Your task to perform on an android device: check battery use Image 0: 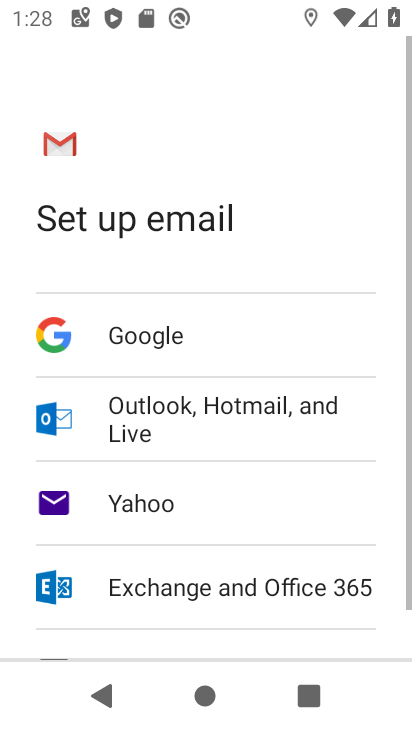
Step 0: press back button
Your task to perform on an android device: check battery use Image 1: 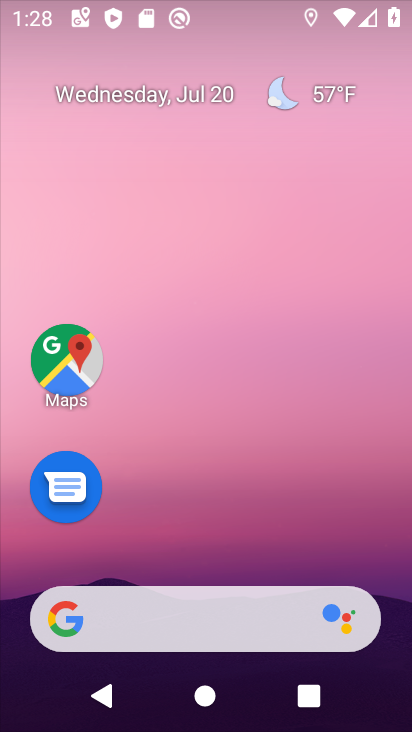
Step 1: drag from (166, 541) to (245, 49)
Your task to perform on an android device: check battery use Image 2: 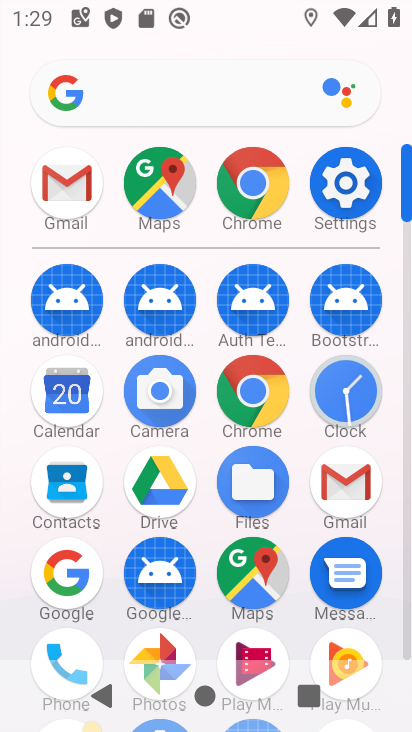
Step 2: click (356, 174)
Your task to perform on an android device: check battery use Image 3: 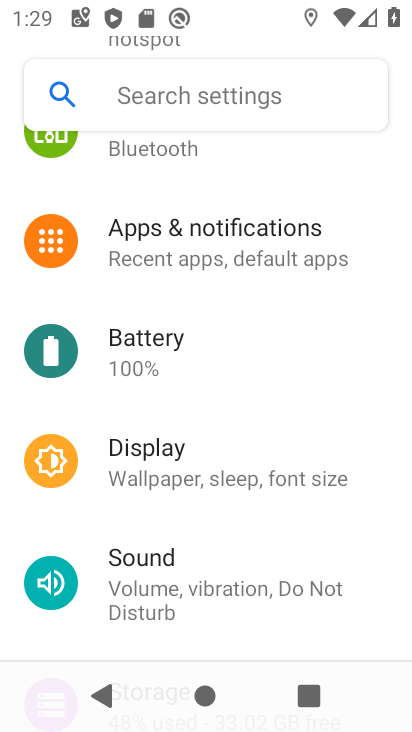
Step 3: click (165, 338)
Your task to perform on an android device: check battery use Image 4: 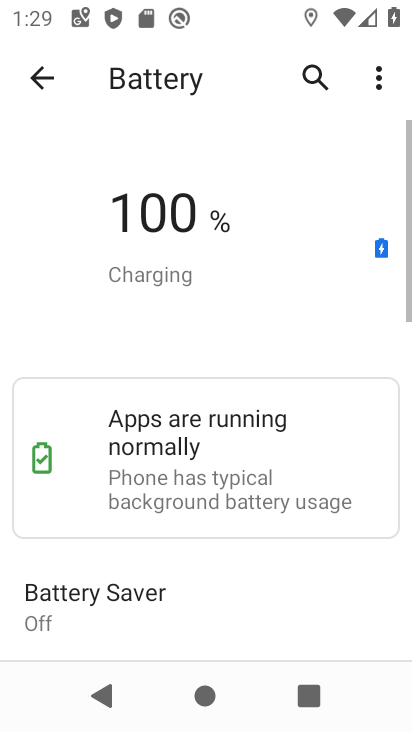
Step 4: click (382, 82)
Your task to perform on an android device: check battery use Image 5: 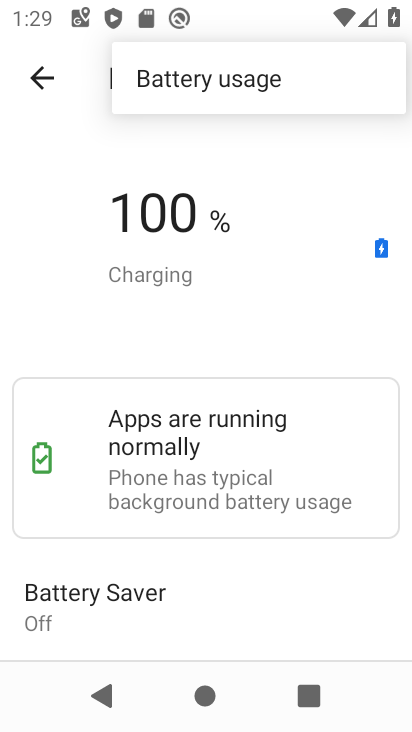
Step 5: click (286, 76)
Your task to perform on an android device: check battery use Image 6: 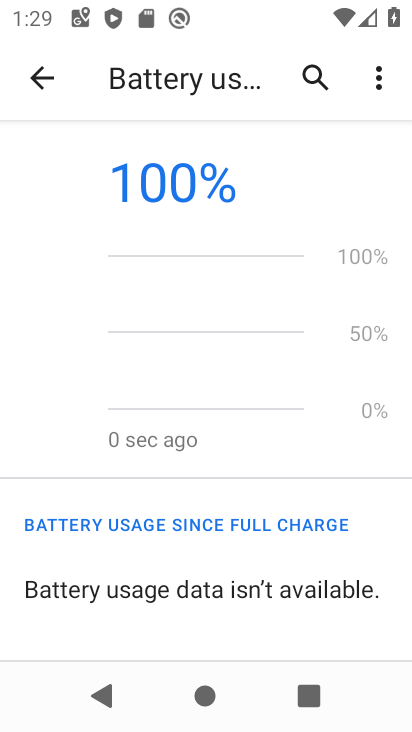
Step 6: task complete